Your task to perform on an android device: Is it going to rain today? Image 0: 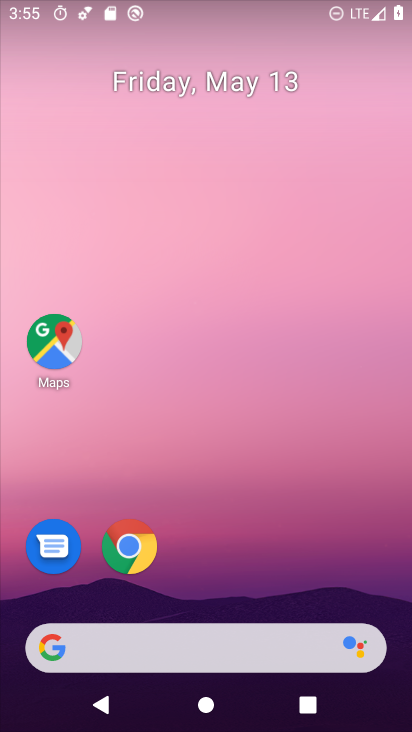
Step 0: drag from (285, 572) to (285, 114)
Your task to perform on an android device: Is it going to rain today? Image 1: 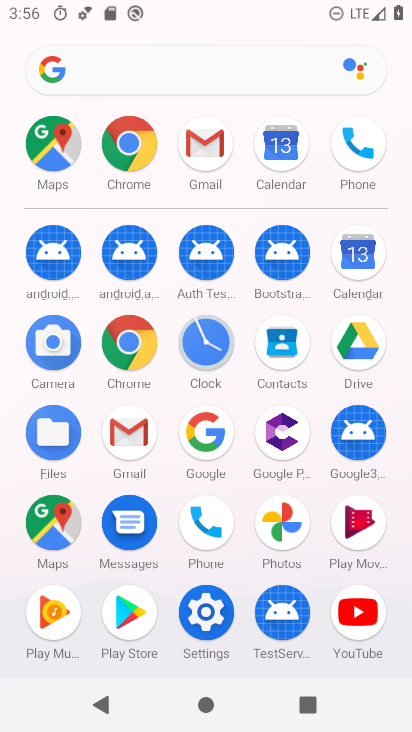
Step 1: click (190, 446)
Your task to perform on an android device: Is it going to rain today? Image 2: 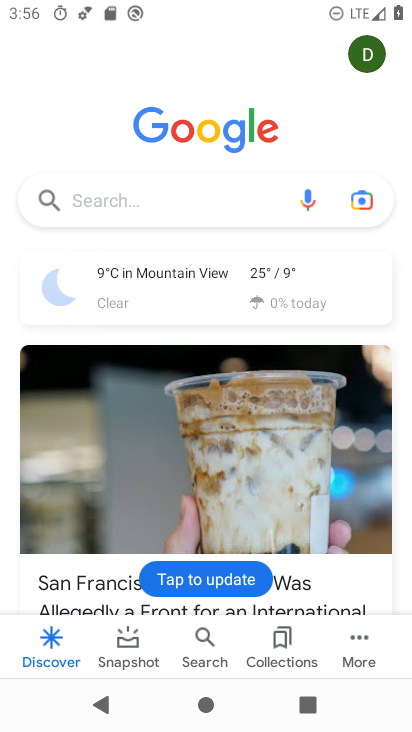
Step 2: drag from (176, 518) to (187, 412)
Your task to perform on an android device: Is it going to rain today? Image 3: 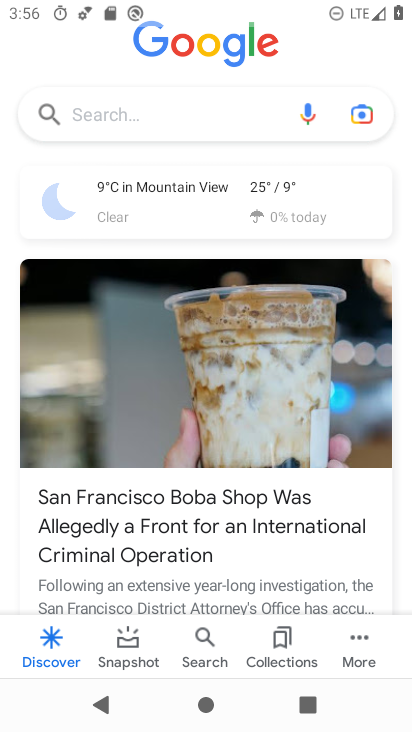
Step 3: click (182, 98)
Your task to perform on an android device: Is it going to rain today? Image 4: 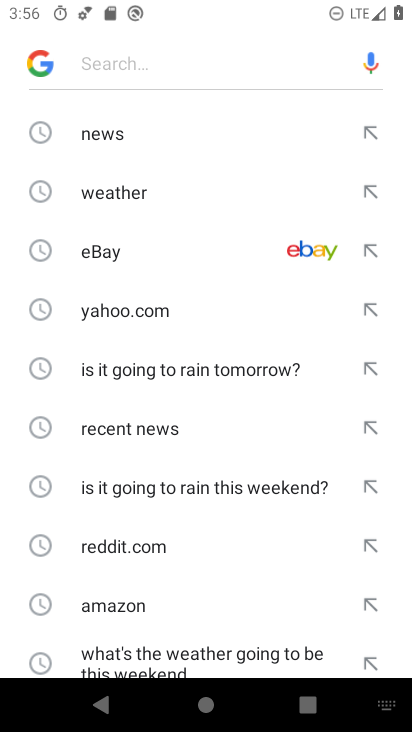
Step 4: click (166, 185)
Your task to perform on an android device: Is it going to rain today? Image 5: 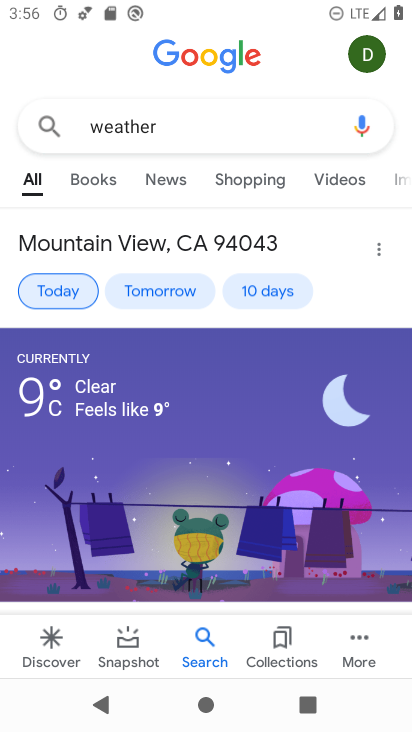
Step 5: task complete